Your task to perform on an android device: Go to privacy settings Image 0: 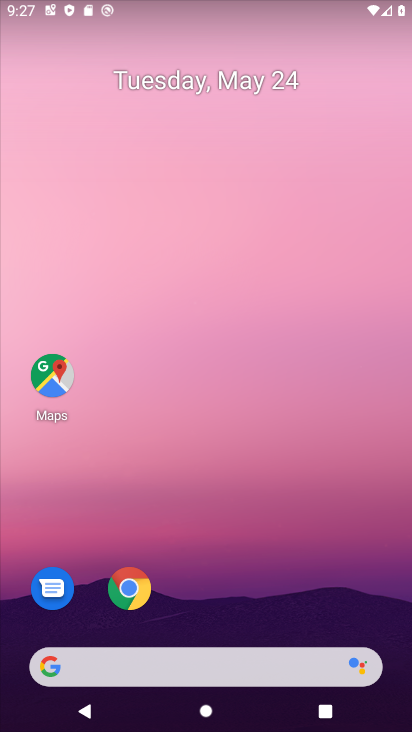
Step 0: drag from (212, 580) to (277, 71)
Your task to perform on an android device: Go to privacy settings Image 1: 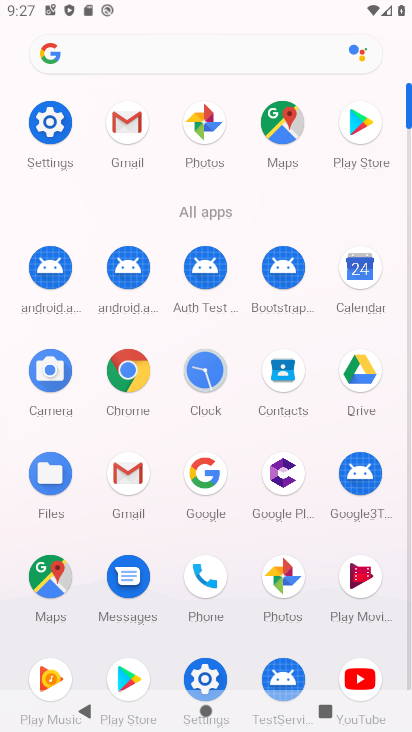
Step 1: click (51, 123)
Your task to perform on an android device: Go to privacy settings Image 2: 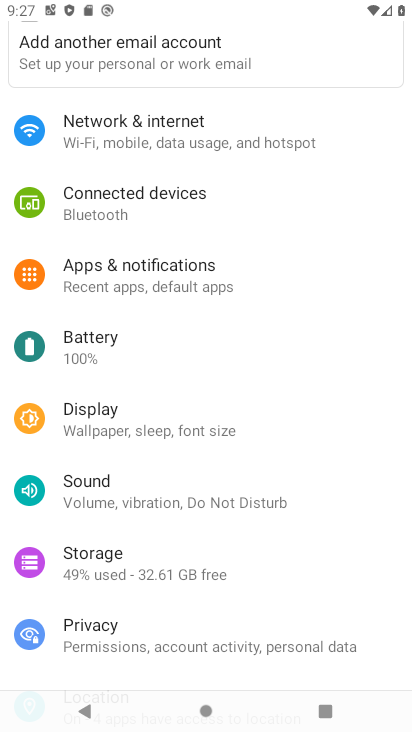
Step 2: click (100, 643)
Your task to perform on an android device: Go to privacy settings Image 3: 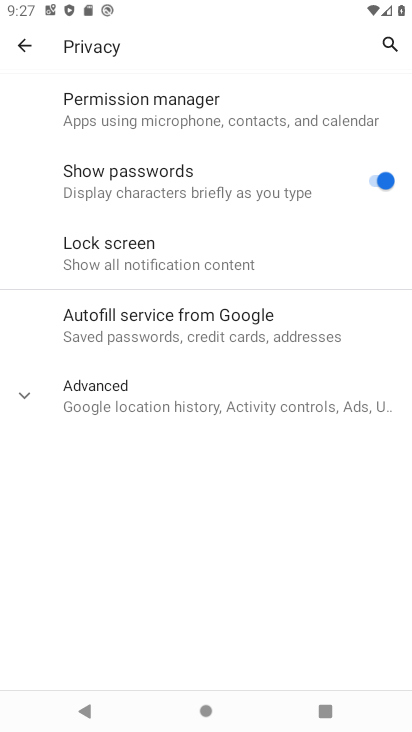
Step 3: task complete